Your task to perform on an android device: Open Chrome and go to settings Image 0: 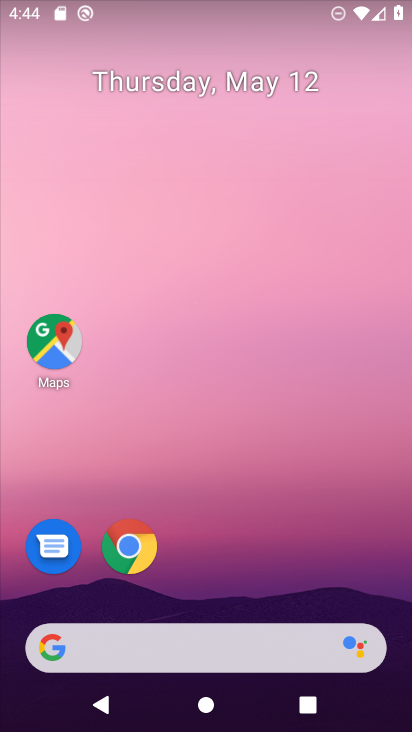
Step 0: drag from (253, 598) to (281, 151)
Your task to perform on an android device: Open Chrome and go to settings Image 1: 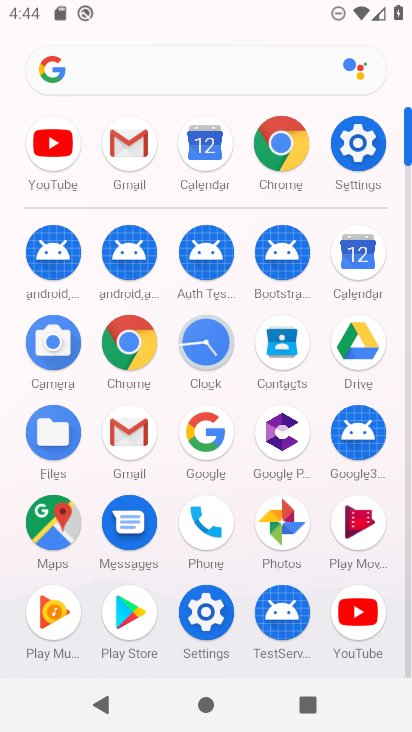
Step 1: click (285, 144)
Your task to perform on an android device: Open Chrome and go to settings Image 2: 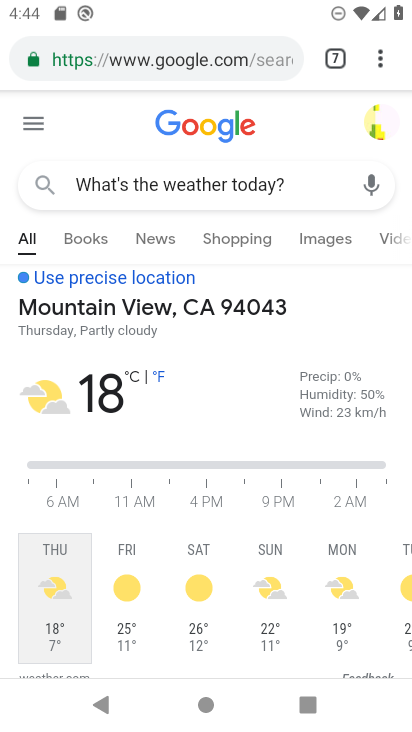
Step 2: click (369, 45)
Your task to perform on an android device: Open Chrome and go to settings Image 3: 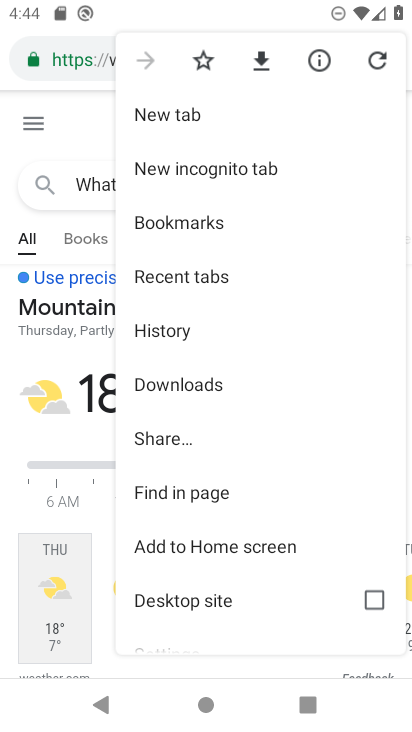
Step 3: drag from (192, 591) to (246, 247)
Your task to perform on an android device: Open Chrome and go to settings Image 4: 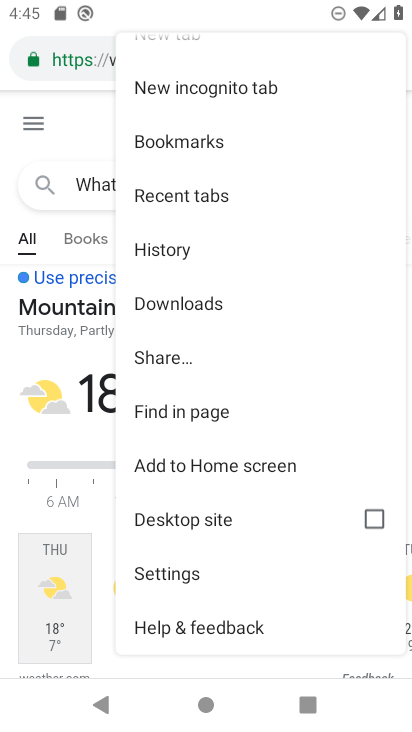
Step 4: click (174, 581)
Your task to perform on an android device: Open Chrome and go to settings Image 5: 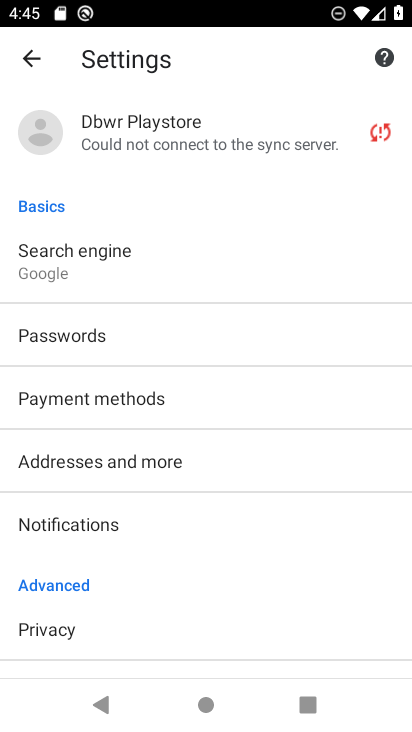
Step 5: task complete